Your task to perform on an android device: Search for sushi restaurants on Maps Image 0: 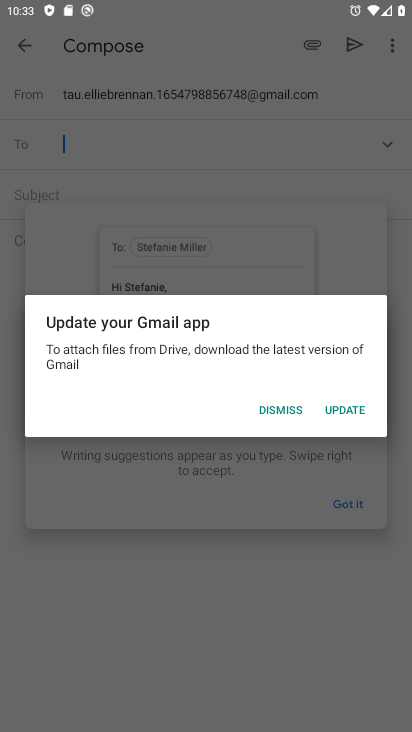
Step 0: press home button
Your task to perform on an android device: Search for sushi restaurants on Maps Image 1: 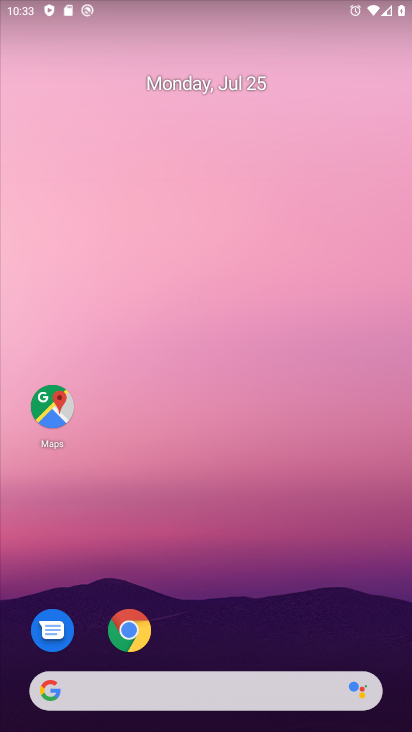
Step 1: click (54, 418)
Your task to perform on an android device: Search for sushi restaurants on Maps Image 2: 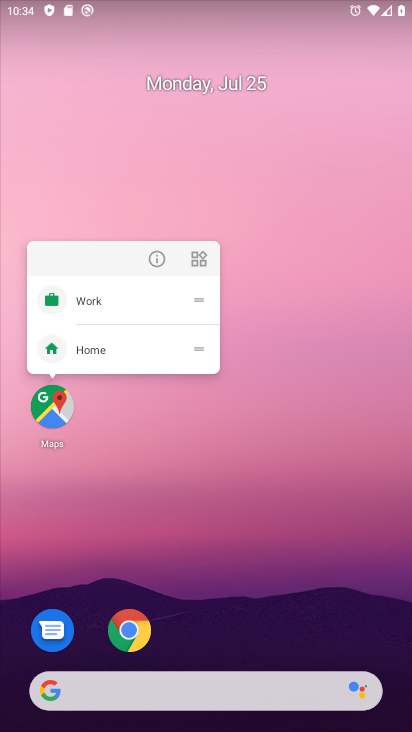
Step 2: click (59, 410)
Your task to perform on an android device: Search for sushi restaurants on Maps Image 3: 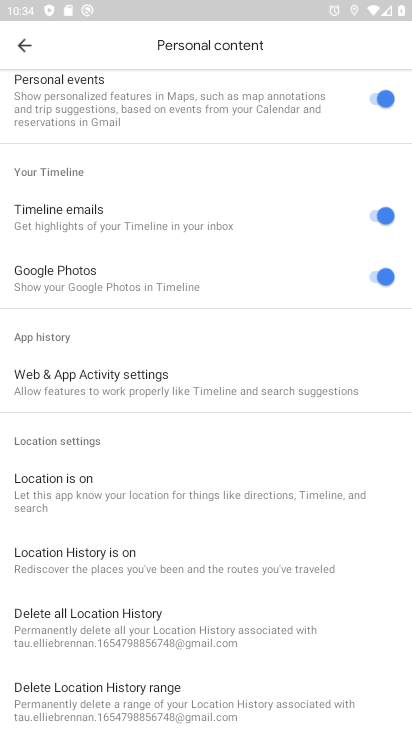
Step 3: click (24, 49)
Your task to perform on an android device: Search for sushi restaurants on Maps Image 4: 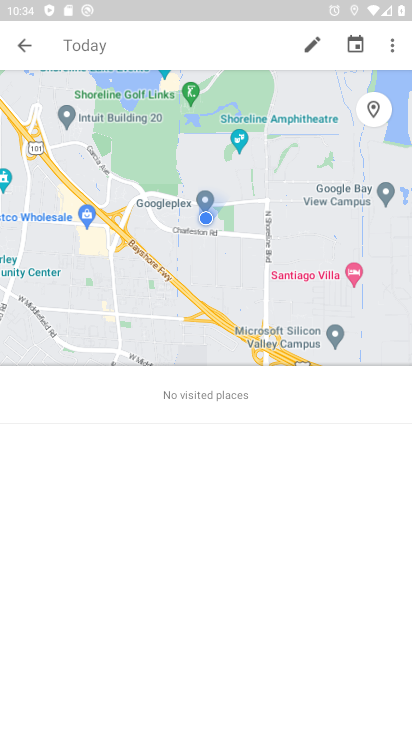
Step 4: click (24, 49)
Your task to perform on an android device: Search for sushi restaurants on Maps Image 5: 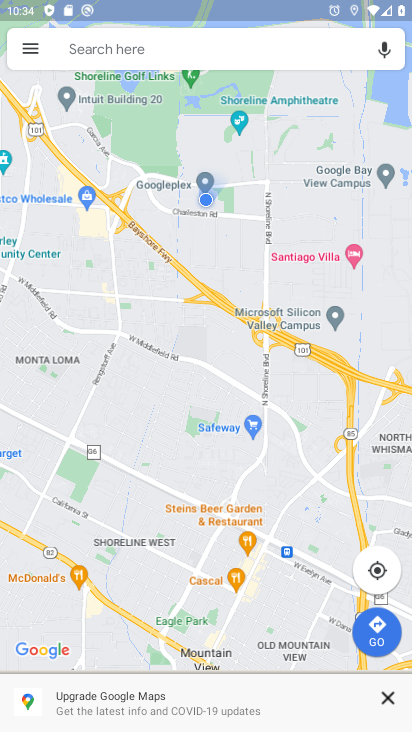
Step 5: click (156, 43)
Your task to perform on an android device: Search for sushi restaurants on Maps Image 6: 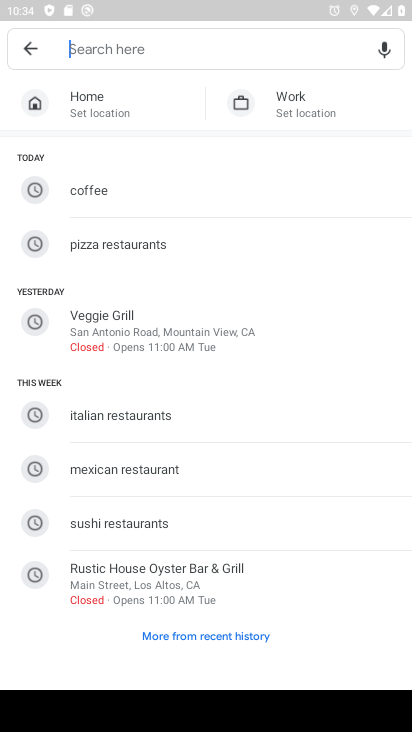
Step 6: click (140, 512)
Your task to perform on an android device: Search for sushi restaurants on Maps Image 7: 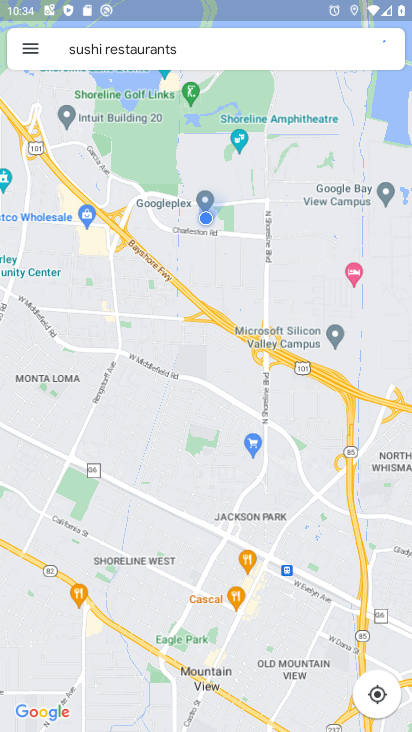
Step 7: task complete